Your task to perform on an android device: Open the calendar app, open the side menu, and click the "Day" option Image 0: 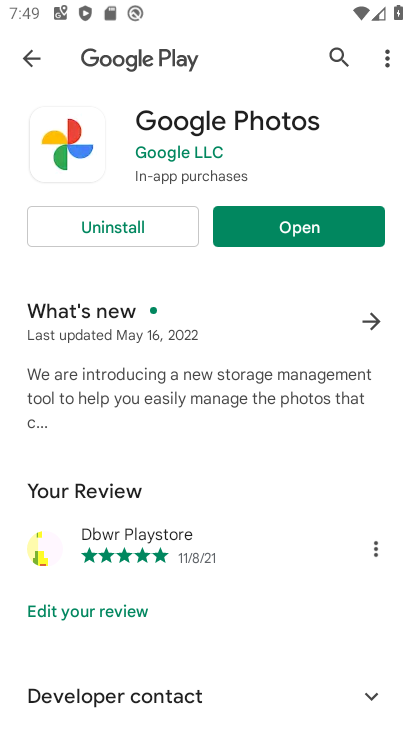
Step 0: press home button
Your task to perform on an android device: Open the calendar app, open the side menu, and click the "Day" option Image 1: 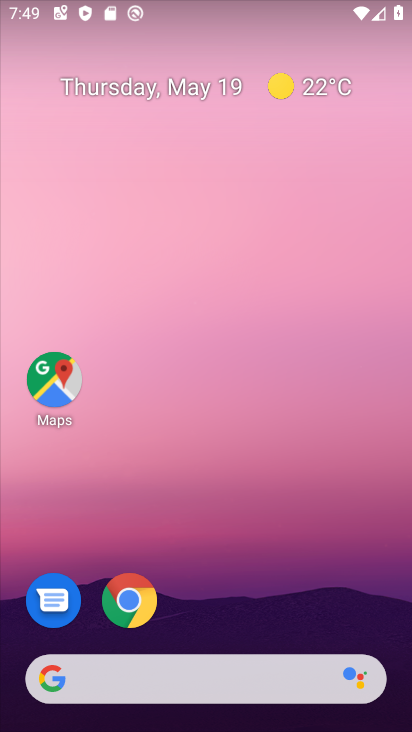
Step 1: drag from (311, 563) to (297, 124)
Your task to perform on an android device: Open the calendar app, open the side menu, and click the "Day" option Image 2: 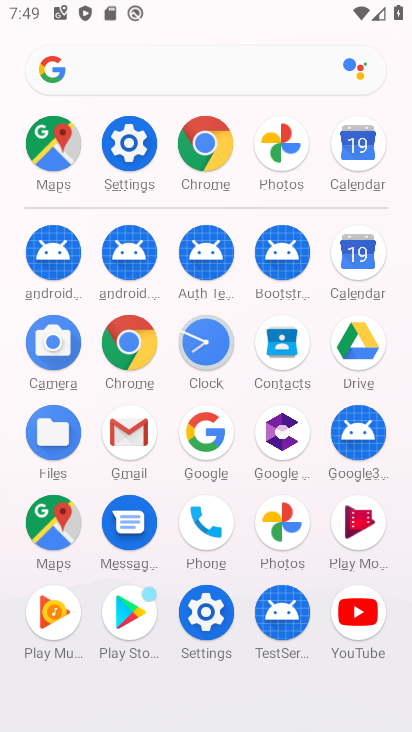
Step 2: click (361, 266)
Your task to perform on an android device: Open the calendar app, open the side menu, and click the "Day" option Image 3: 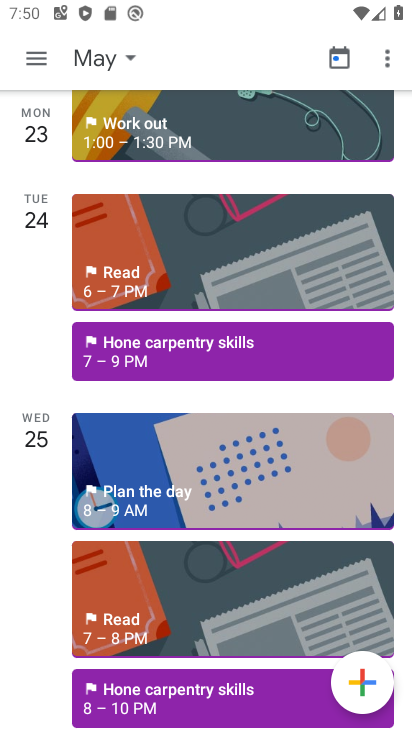
Step 3: click (40, 60)
Your task to perform on an android device: Open the calendar app, open the side menu, and click the "Day" option Image 4: 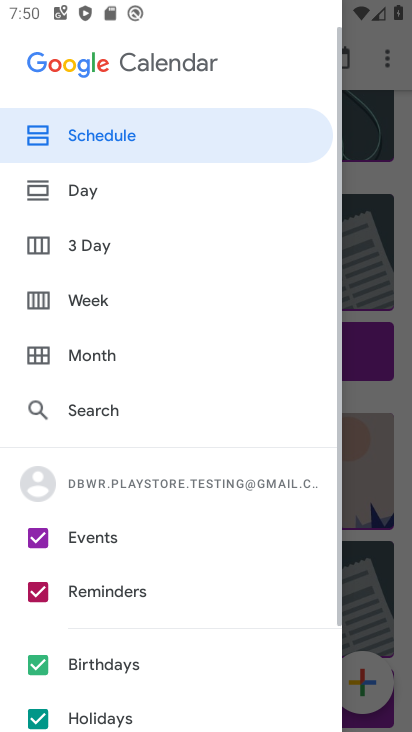
Step 4: click (90, 191)
Your task to perform on an android device: Open the calendar app, open the side menu, and click the "Day" option Image 5: 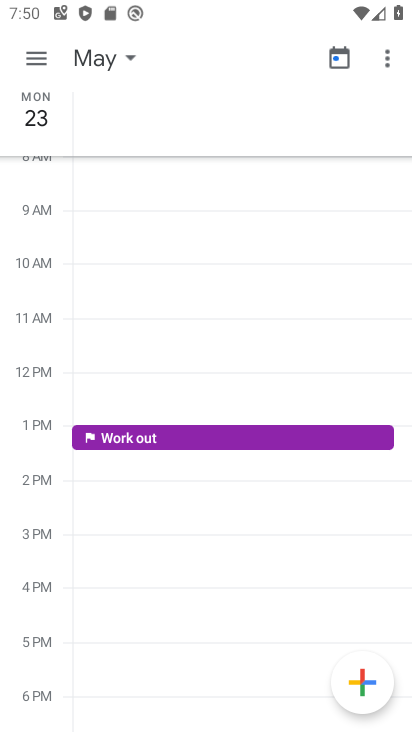
Step 5: task complete